Your task to perform on an android device: Open settings on Google Maps Image 0: 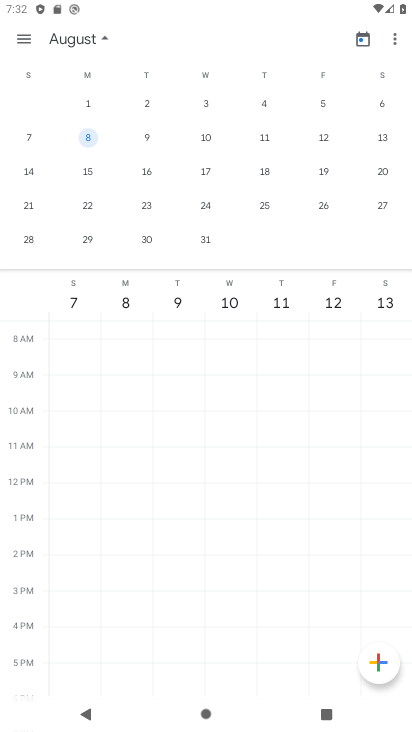
Step 0: press home button
Your task to perform on an android device: Open settings on Google Maps Image 1: 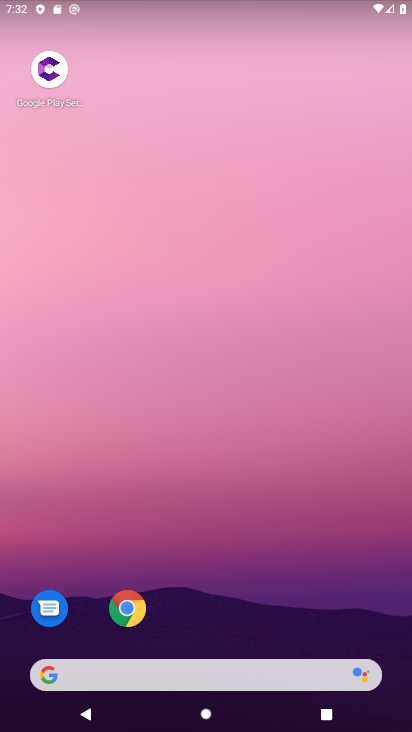
Step 1: drag from (214, 495) to (168, 121)
Your task to perform on an android device: Open settings on Google Maps Image 2: 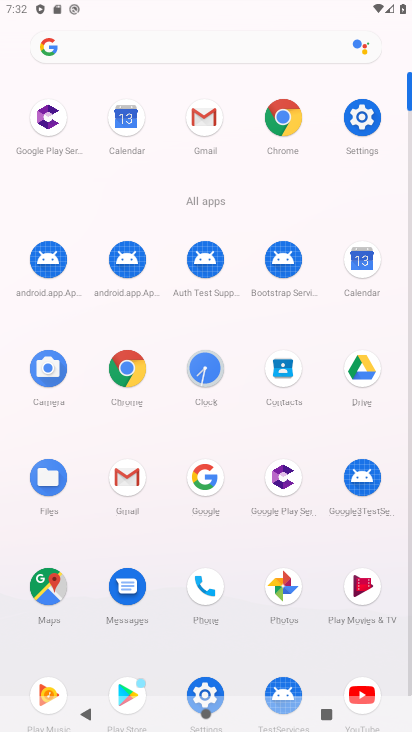
Step 2: click (45, 580)
Your task to perform on an android device: Open settings on Google Maps Image 3: 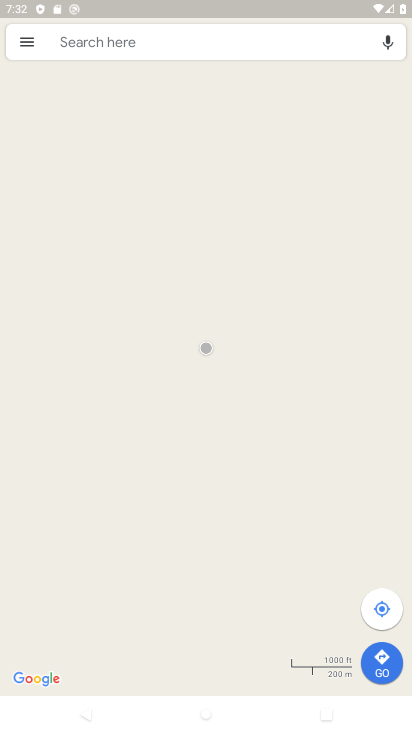
Step 3: click (28, 40)
Your task to perform on an android device: Open settings on Google Maps Image 4: 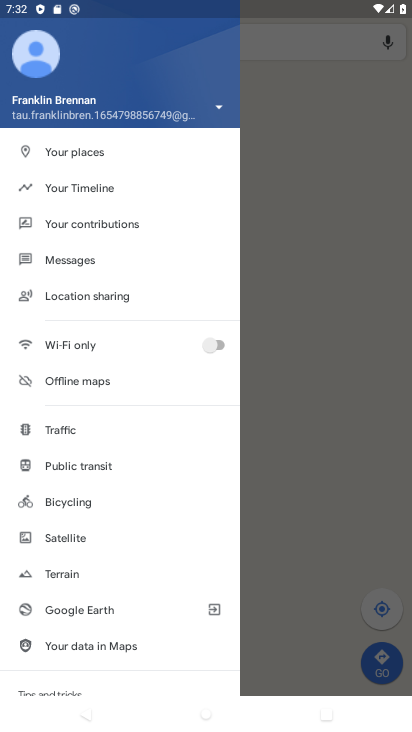
Step 4: drag from (155, 632) to (75, 237)
Your task to perform on an android device: Open settings on Google Maps Image 5: 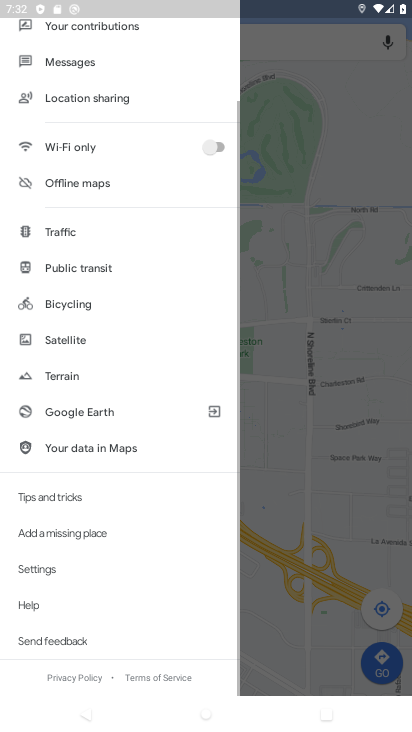
Step 5: click (35, 570)
Your task to perform on an android device: Open settings on Google Maps Image 6: 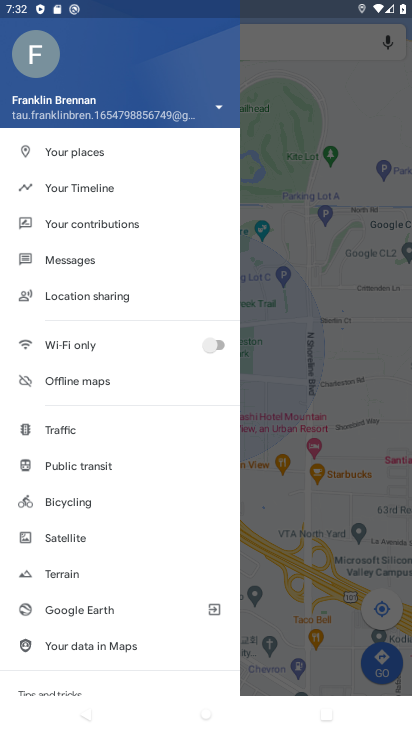
Step 6: click (144, 368)
Your task to perform on an android device: Open settings on Google Maps Image 7: 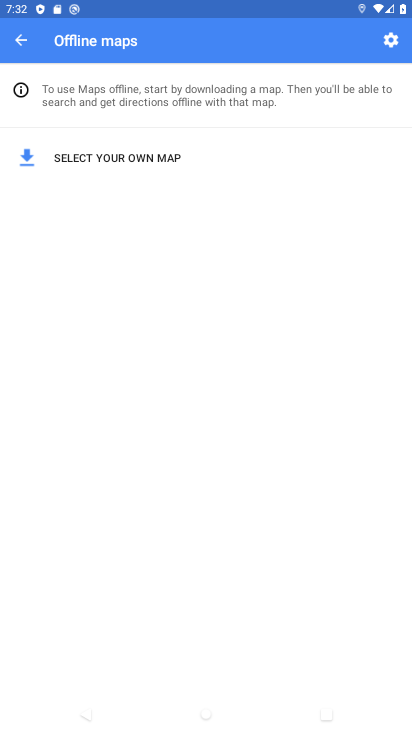
Step 7: task complete